Your task to perform on an android device: Open privacy settings Image 0: 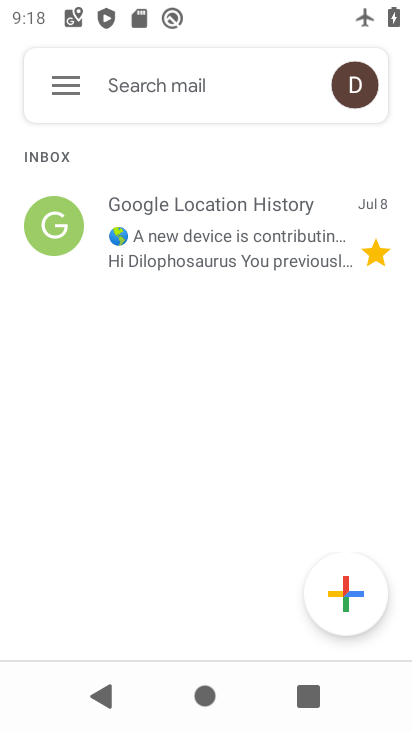
Step 0: press back button
Your task to perform on an android device: Open privacy settings Image 1: 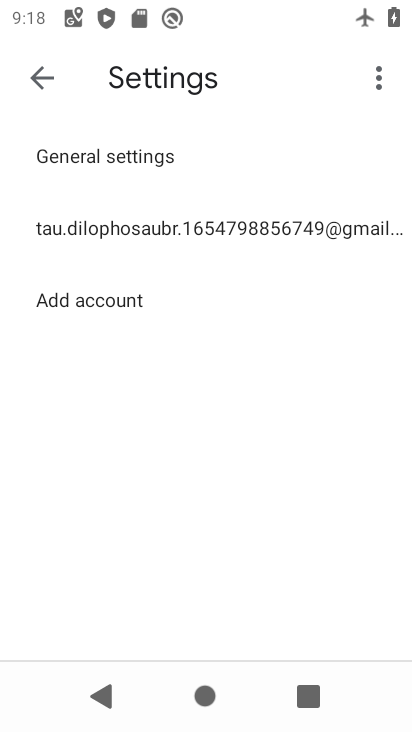
Step 1: press back button
Your task to perform on an android device: Open privacy settings Image 2: 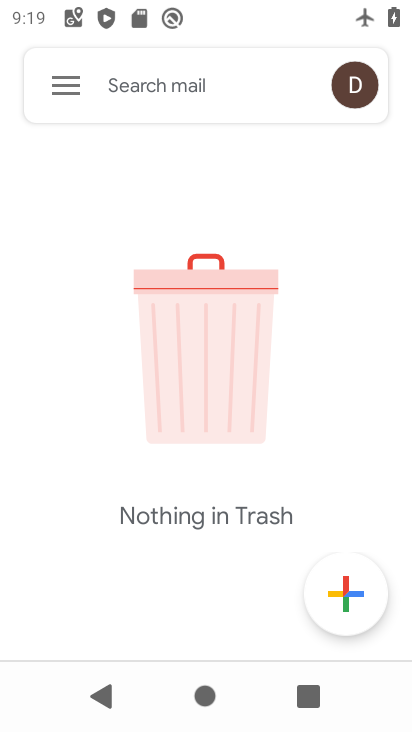
Step 2: press back button
Your task to perform on an android device: Open privacy settings Image 3: 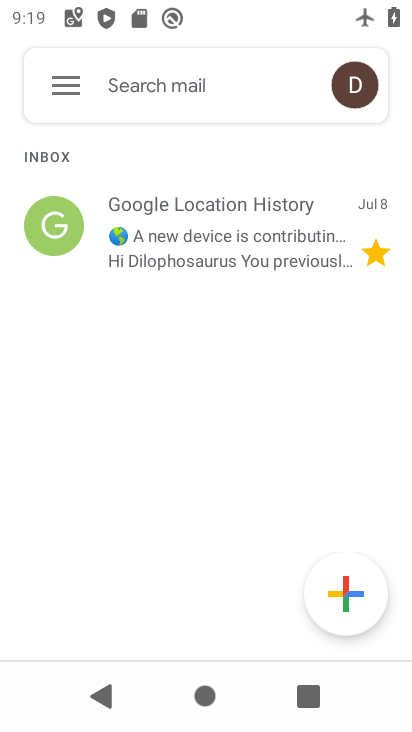
Step 3: press back button
Your task to perform on an android device: Open privacy settings Image 4: 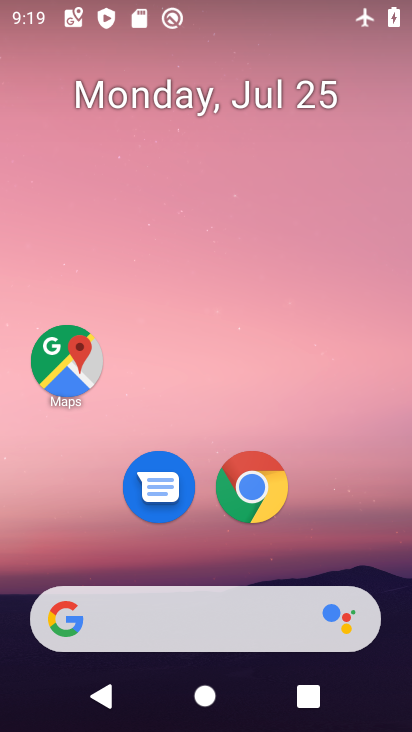
Step 4: drag from (183, 514) to (254, 54)
Your task to perform on an android device: Open privacy settings Image 5: 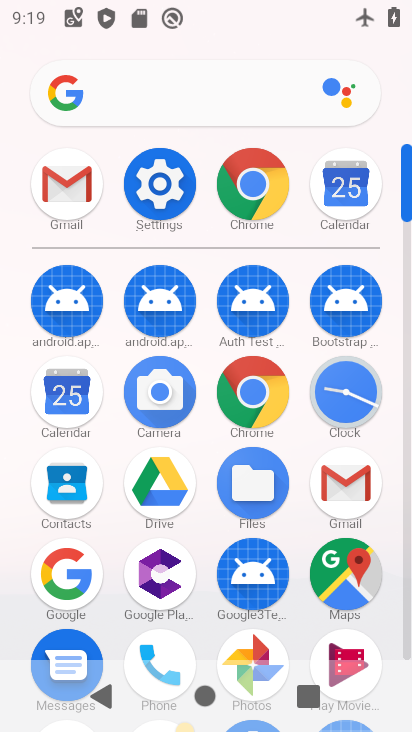
Step 5: click (172, 192)
Your task to perform on an android device: Open privacy settings Image 6: 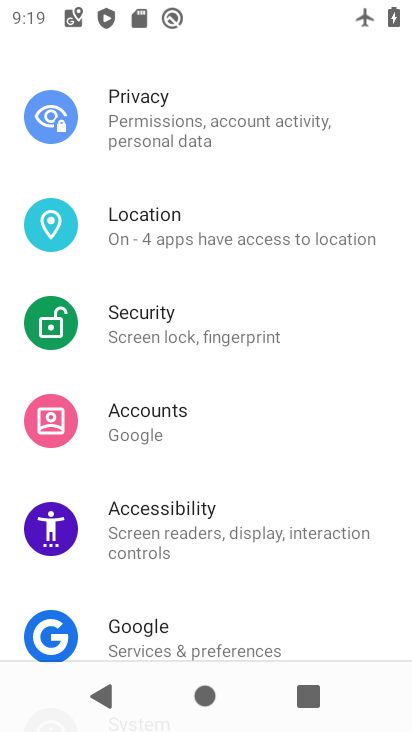
Step 6: click (222, 126)
Your task to perform on an android device: Open privacy settings Image 7: 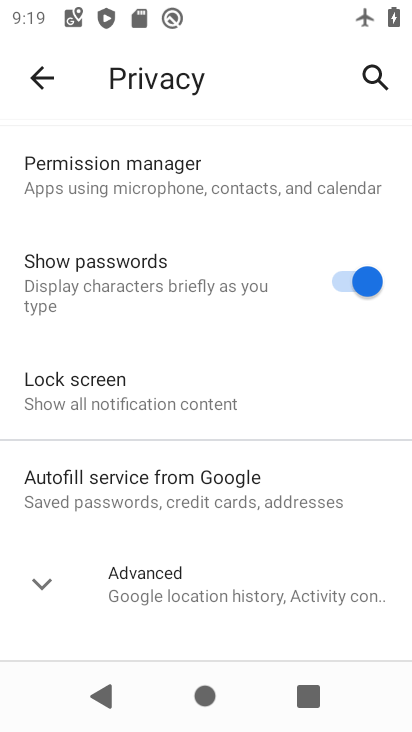
Step 7: task complete